Your task to perform on an android device: set default search engine in the chrome app Image 0: 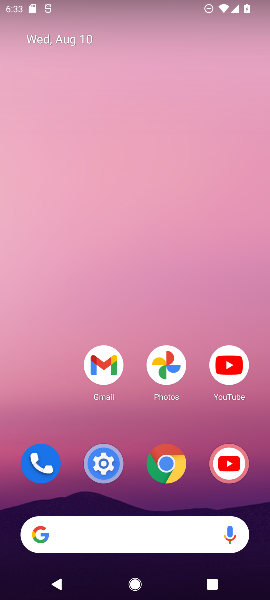
Step 0: click (170, 464)
Your task to perform on an android device: set default search engine in the chrome app Image 1: 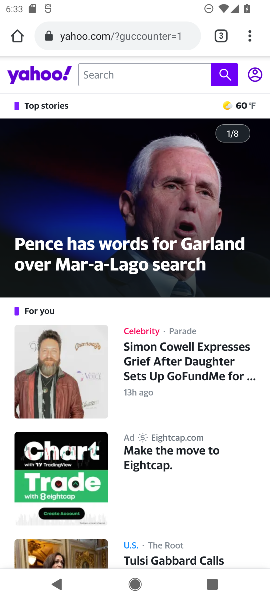
Step 1: click (251, 39)
Your task to perform on an android device: set default search engine in the chrome app Image 2: 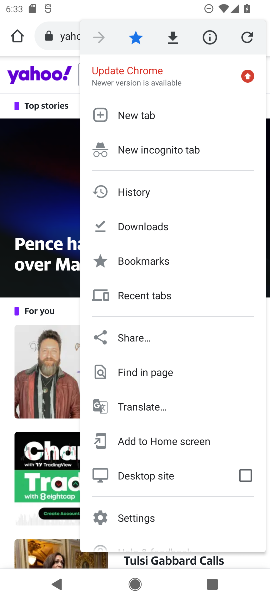
Step 2: click (145, 514)
Your task to perform on an android device: set default search engine in the chrome app Image 3: 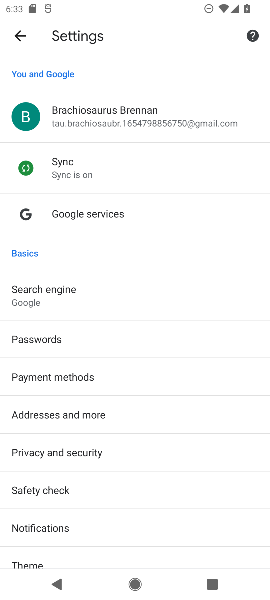
Step 3: click (42, 288)
Your task to perform on an android device: set default search engine in the chrome app Image 4: 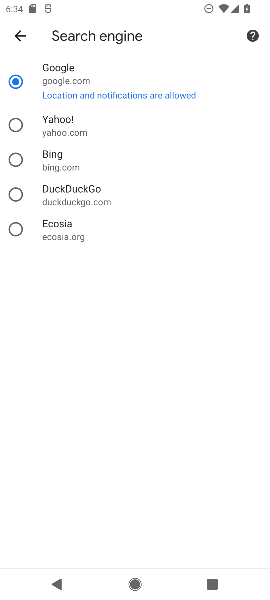
Step 4: task complete